Your task to perform on an android device: turn off location history Image 0: 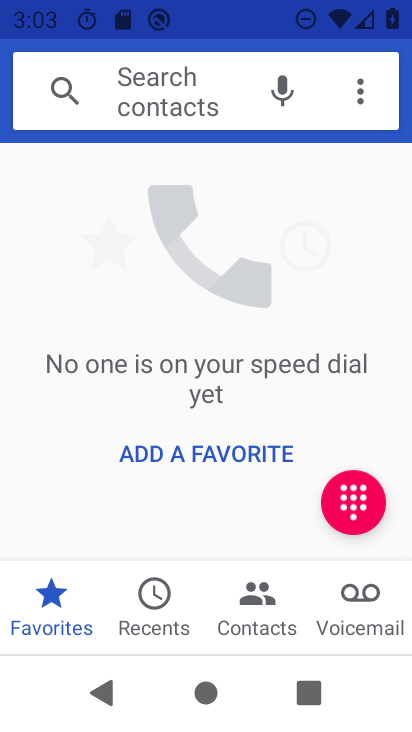
Step 0: press home button
Your task to perform on an android device: turn off location history Image 1: 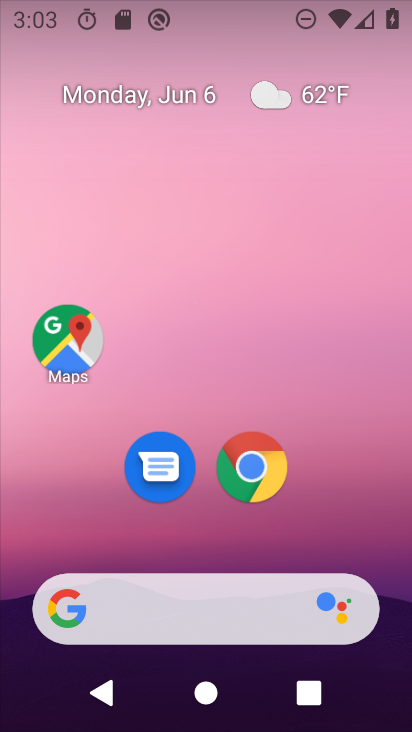
Step 1: drag from (195, 560) to (204, 359)
Your task to perform on an android device: turn off location history Image 2: 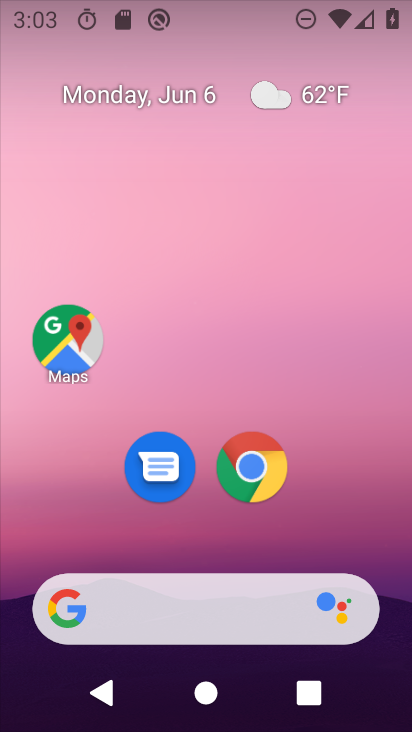
Step 2: drag from (184, 545) to (199, 152)
Your task to perform on an android device: turn off location history Image 3: 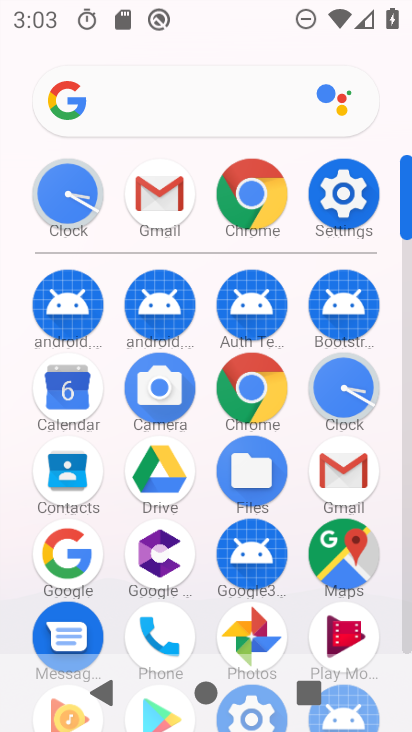
Step 3: click (344, 205)
Your task to perform on an android device: turn off location history Image 4: 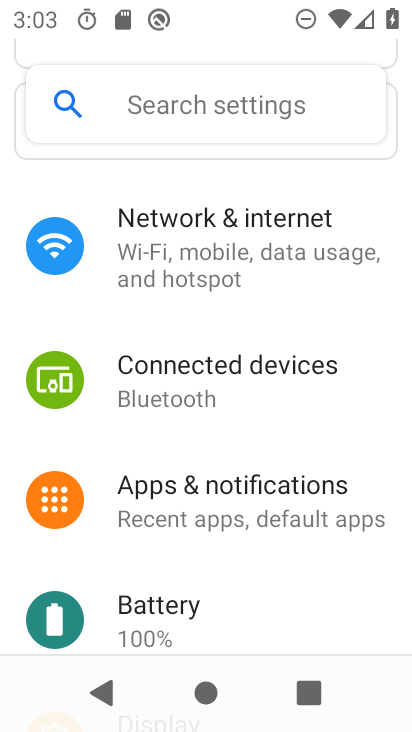
Step 4: drag from (223, 558) to (214, 381)
Your task to perform on an android device: turn off location history Image 5: 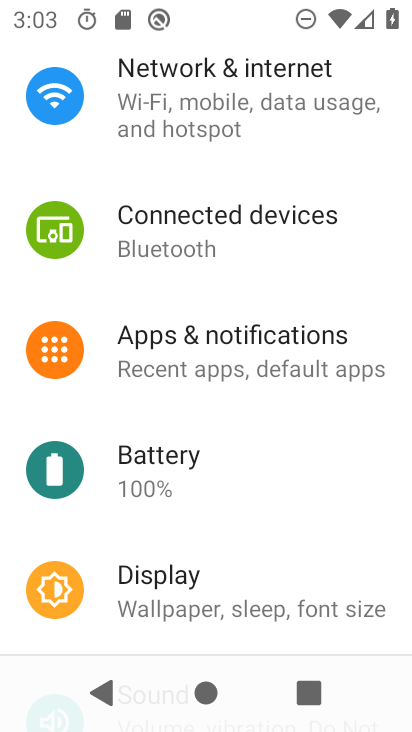
Step 5: drag from (207, 604) to (200, 429)
Your task to perform on an android device: turn off location history Image 6: 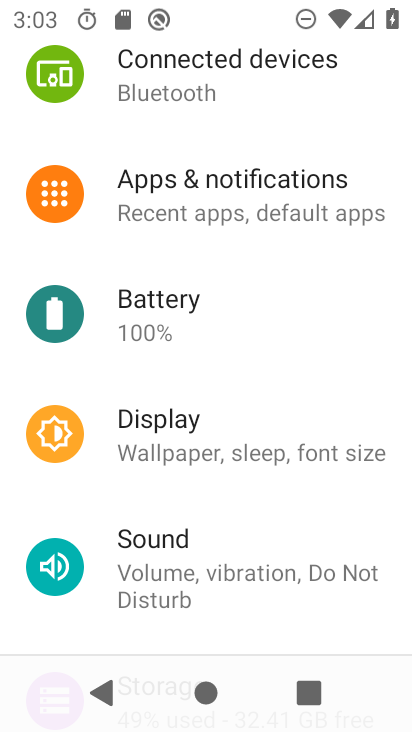
Step 6: drag from (199, 468) to (186, 259)
Your task to perform on an android device: turn off location history Image 7: 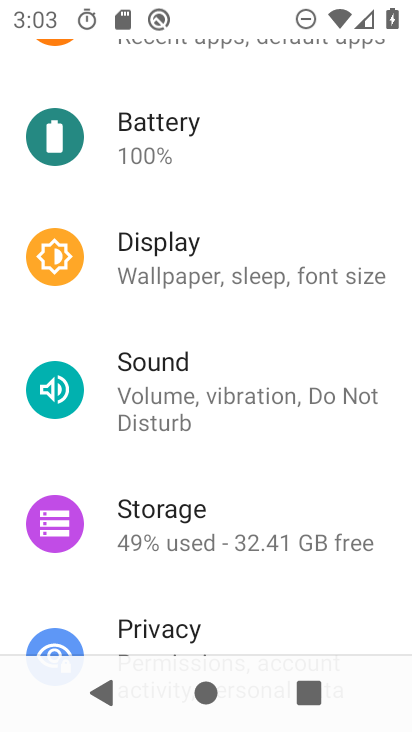
Step 7: drag from (172, 541) to (204, 411)
Your task to perform on an android device: turn off location history Image 8: 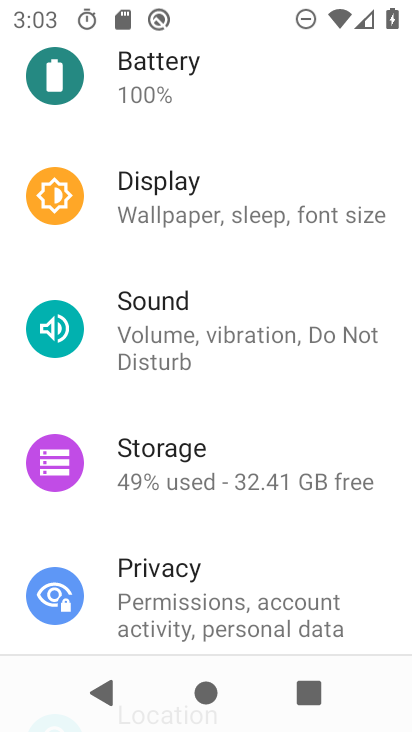
Step 8: drag from (205, 499) to (207, 323)
Your task to perform on an android device: turn off location history Image 9: 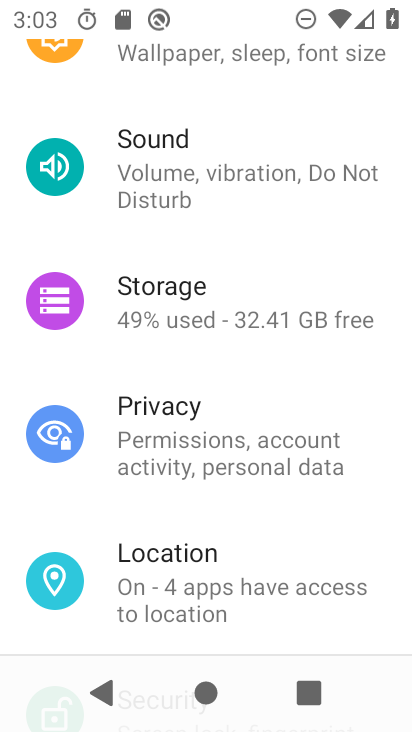
Step 9: click (175, 584)
Your task to perform on an android device: turn off location history Image 10: 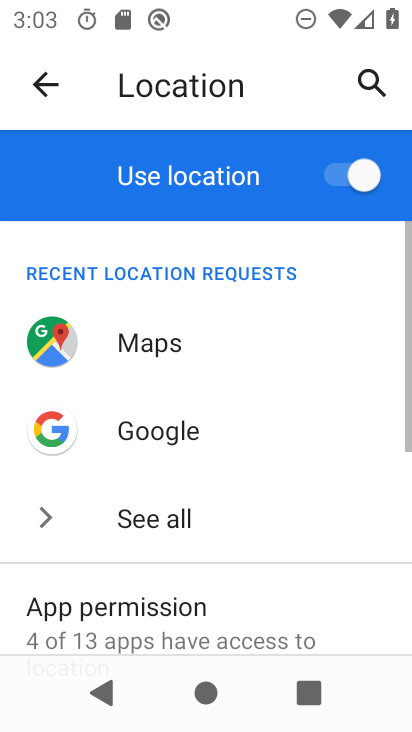
Step 10: drag from (175, 585) to (163, 398)
Your task to perform on an android device: turn off location history Image 11: 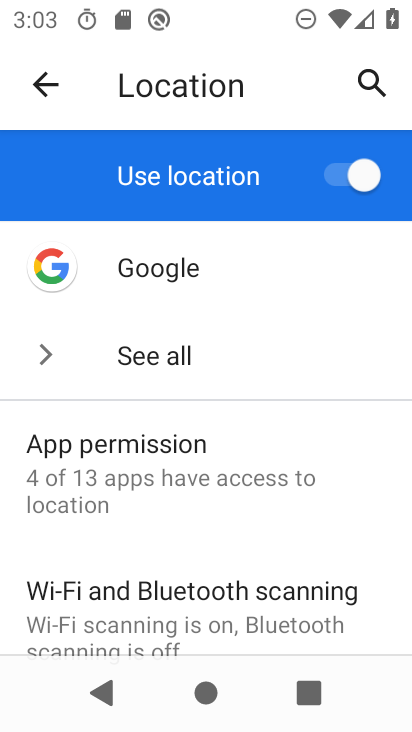
Step 11: drag from (238, 532) to (230, 429)
Your task to perform on an android device: turn off location history Image 12: 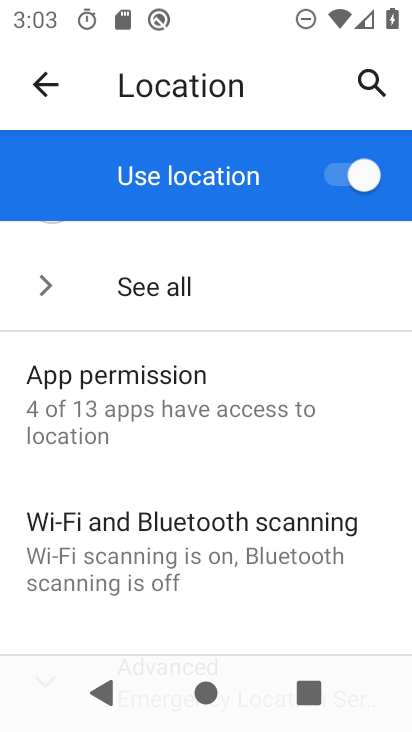
Step 12: drag from (224, 644) to (227, 418)
Your task to perform on an android device: turn off location history Image 13: 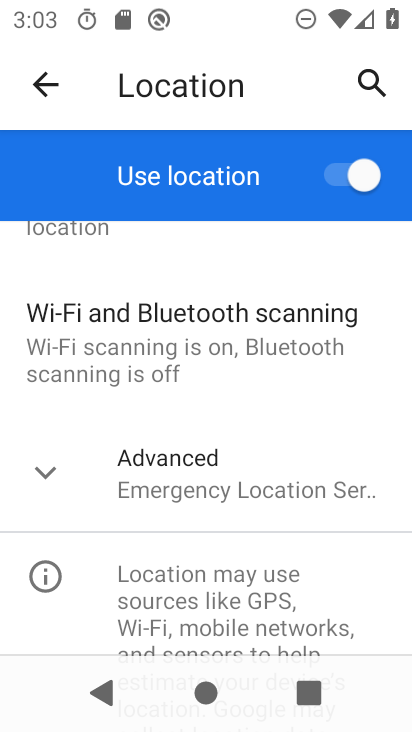
Step 13: click (146, 487)
Your task to perform on an android device: turn off location history Image 14: 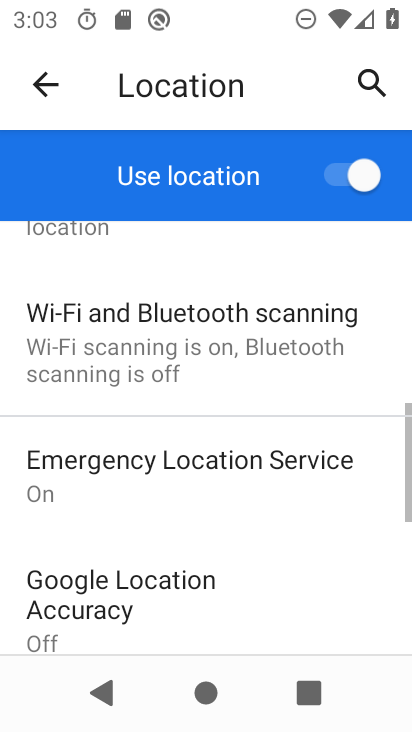
Step 14: drag from (187, 644) to (234, 434)
Your task to perform on an android device: turn off location history Image 15: 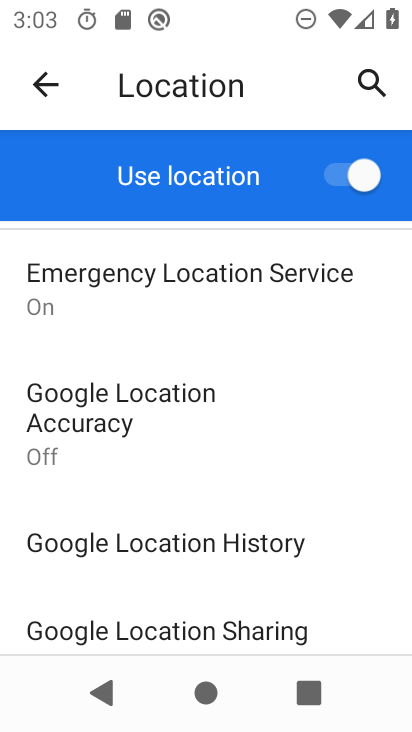
Step 15: click (251, 559)
Your task to perform on an android device: turn off location history Image 16: 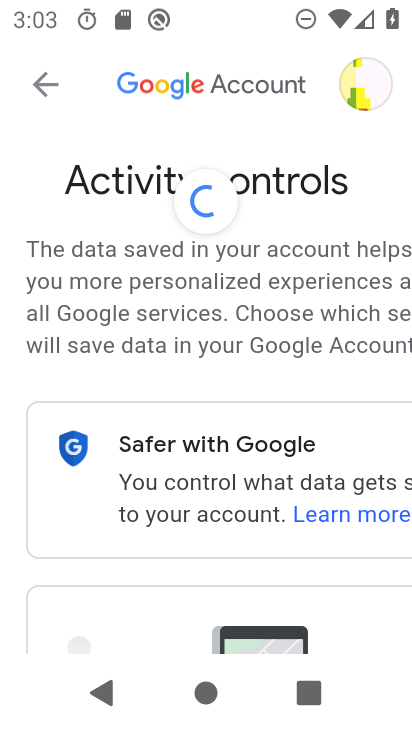
Step 16: drag from (221, 587) to (269, 350)
Your task to perform on an android device: turn off location history Image 17: 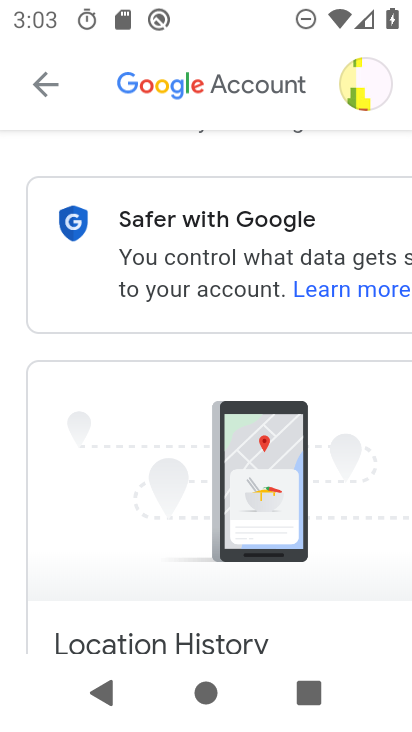
Step 17: drag from (246, 611) to (228, 357)
Your task to perform on an android device: turn off location history Image 18: 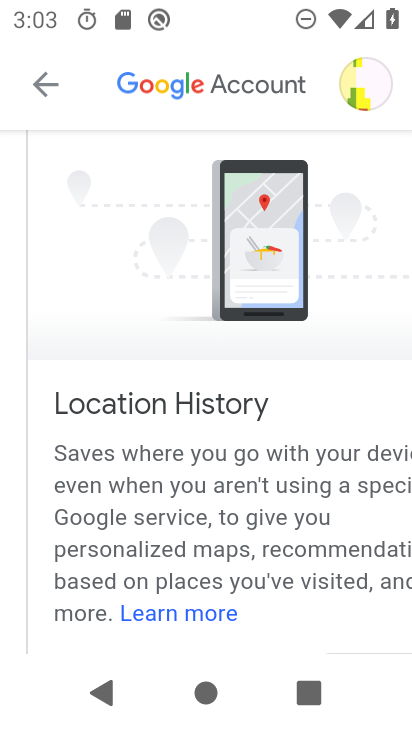
Step 18: drag from (210, 582) to (211, 275)
Your task to perform on an android device: turn off location history Image 19: 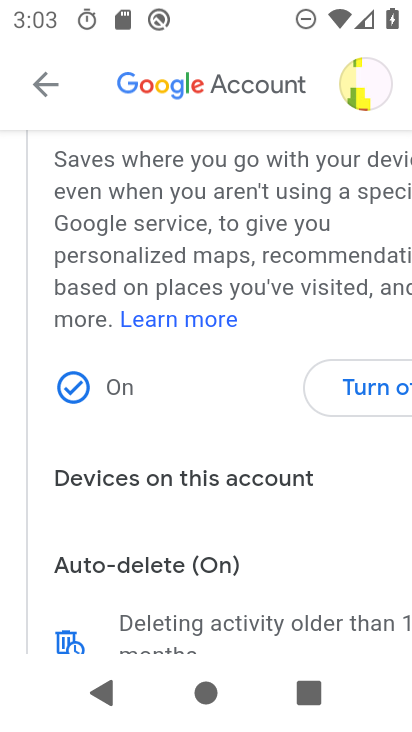
Step 19: click (366, 397)
Your task to perform on an android device: turn off location history Image 20: 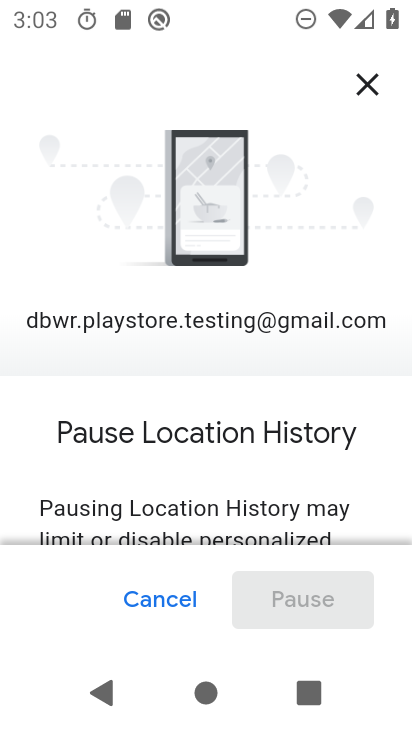
Step 20: drag from (280, 487) to (274, 184)
Your task to perform on an android device: turn off location history Image 21: 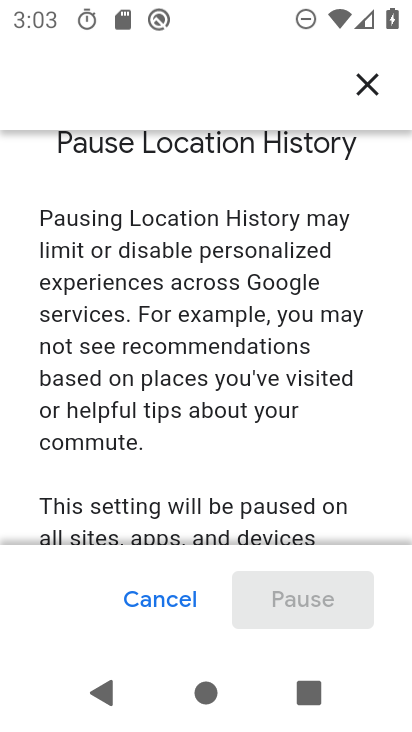
Step 21: drag from (287, 466) to (274, 185)
Your task to perform on an android device: turn off location history Image 22: 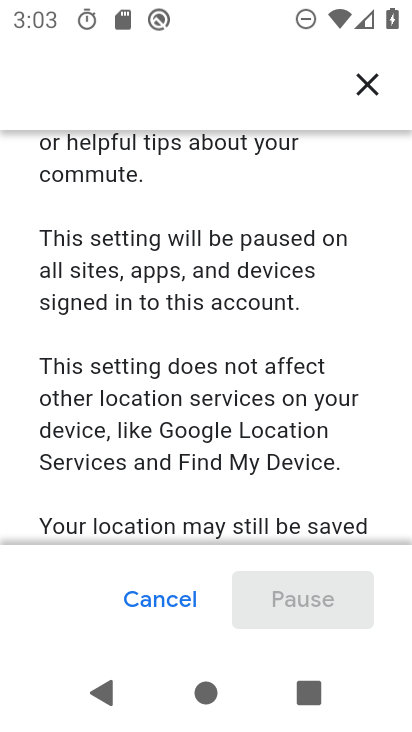
Step 22: drag from (245, 462) to (238, 278)
Your task to perform on an android device: turn off location history Image 23: 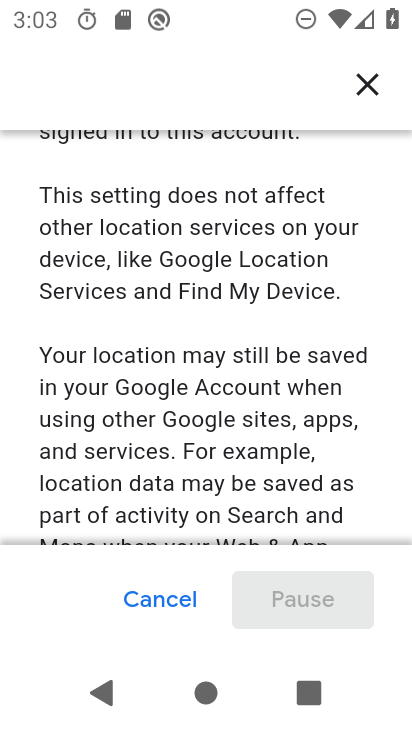
Step 23: drag from (275, 496) to (258, 356)
Your task to perform on an android device: turn off location history Image 24: 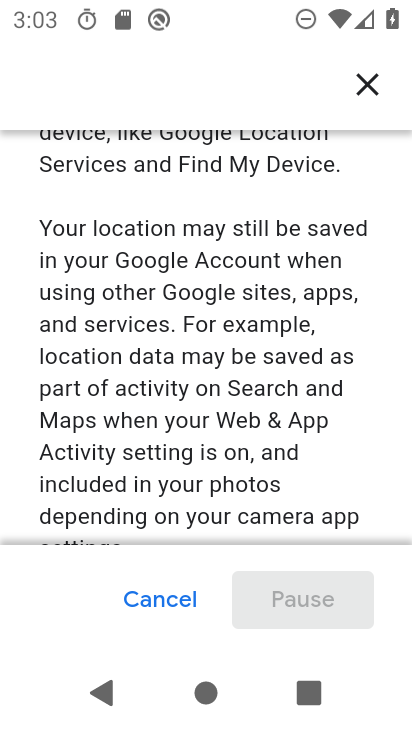
Step 24: click (275, 453)
Your task to perform on an android device: turn off location history Image 25: 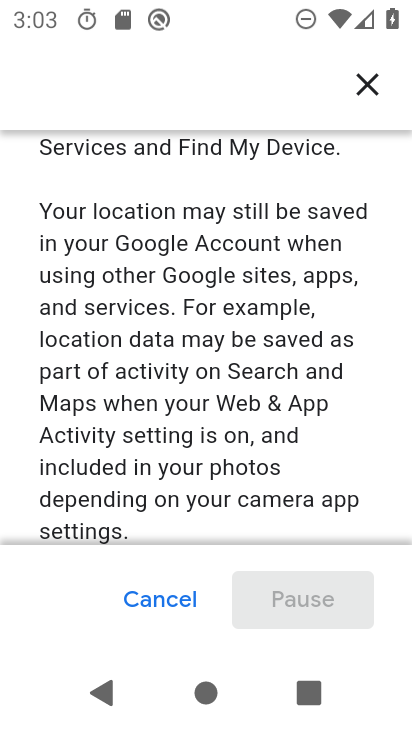
Step 25: drag from (265, 488) to (264, 421)
Your task to perform on an android device: turn off location history Image 26: 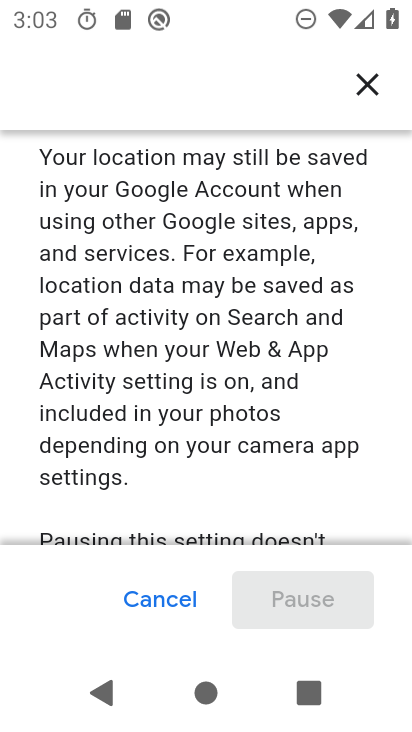
Step 26: drag from (268, 463) to (268, 422)
Your task to perform on an android device: turn off location history Image 27: 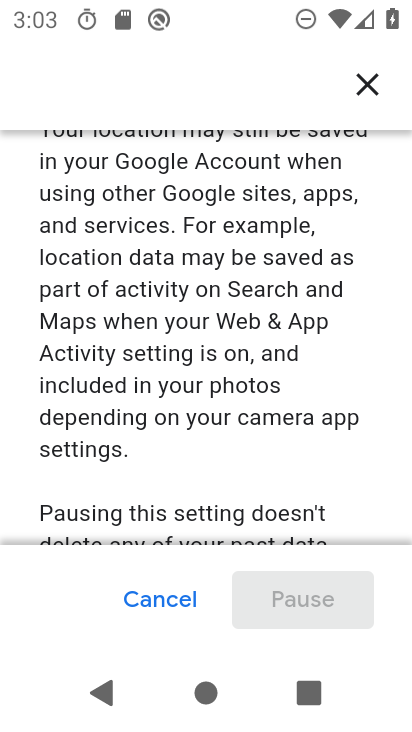
Step 27: drag from (278, 482) to (249, 233)
Your task to perform on an android device: turn off location history Image 28: 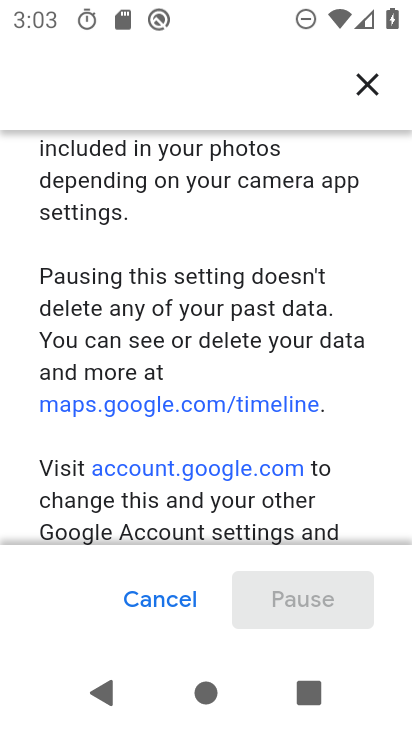
Step 28: drag from (233, 433) to (208, 189)
Your task to perform on an android device: turn off location history Image 29: 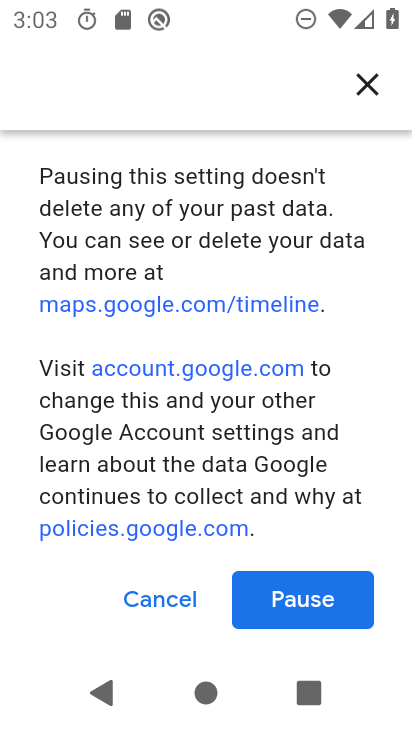
Step 29: click (266, 608)
Your task to perform on an android device: turn off location history Image 30: 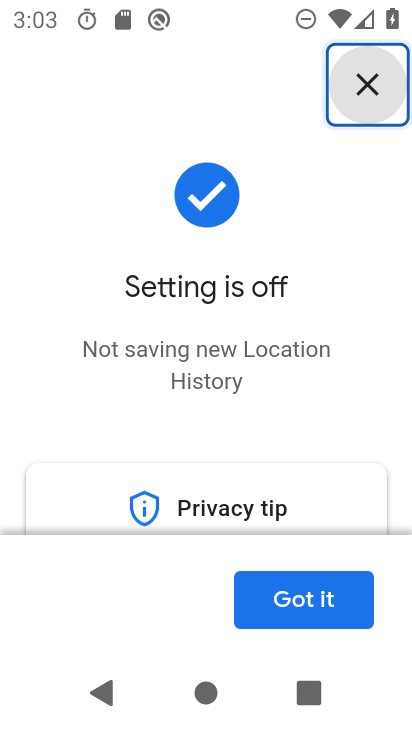
Step 30: click (304, 601)
Your task to perform on an android device: turn off location history Image 31: 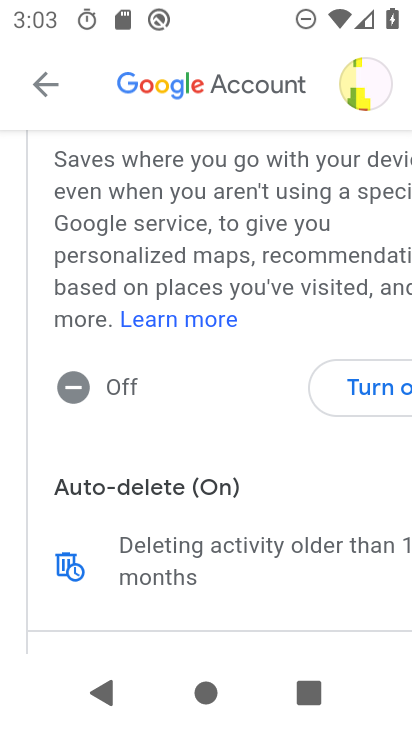
Step 31: task complete